Your task to perform on an android device: Open display settings Image 0: 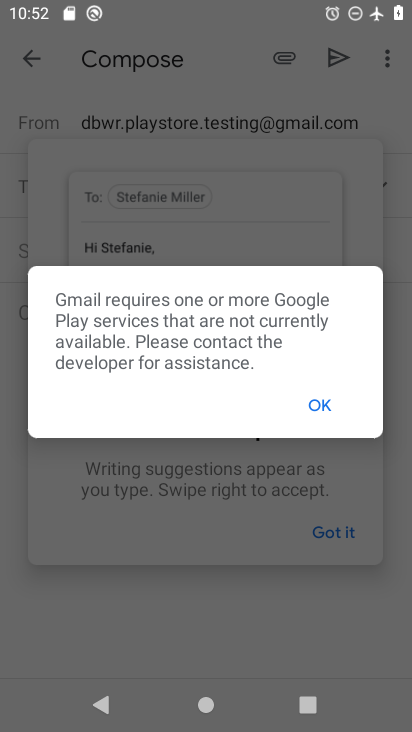
Step 0: press home button
Your task to perform on an android device: Open display settings Image 1: 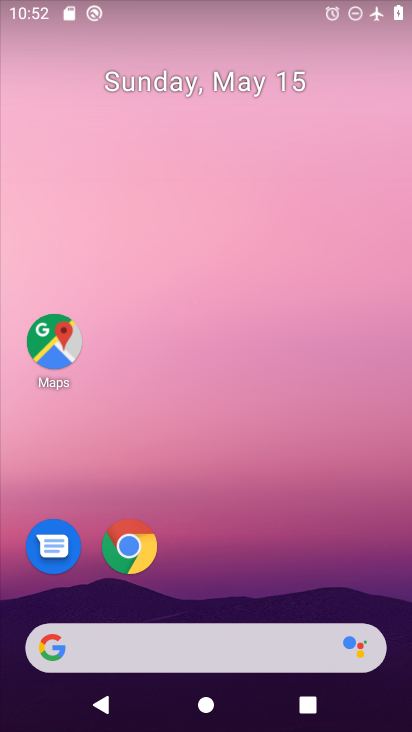
Step 1: drag from (251, 517) to (370, 103)
Your task to perform on an android device: Open display settings Image 2: 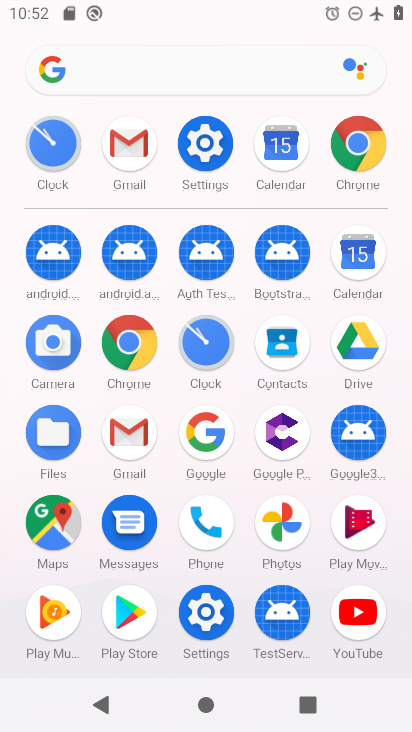
Step 2: click (210, 138)
Your task to perform on an android device: Open display settings Image 3: 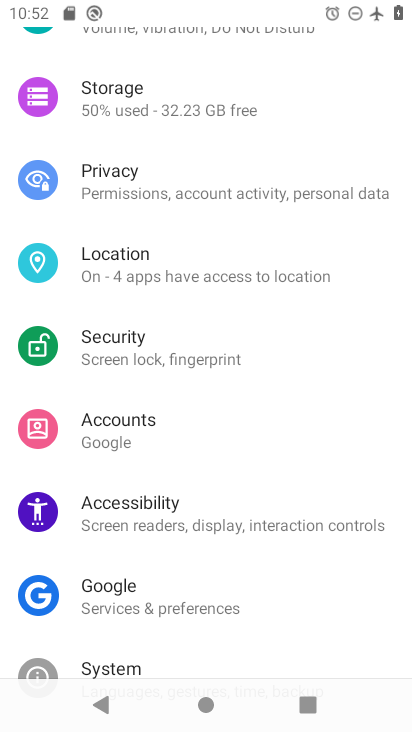
Step 3: drag from (230, 151) to (274, 612)
Your task to perform on an android device: Open display settings Image 4: 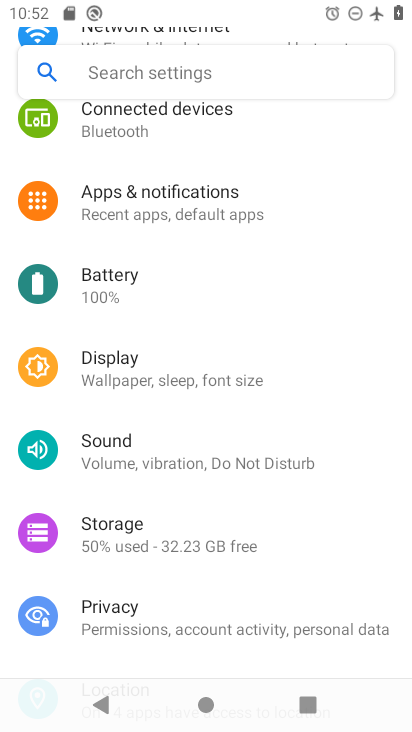
Step 4: click (230, 365)
Your task to perform on an android device: Open display settings Image 5: 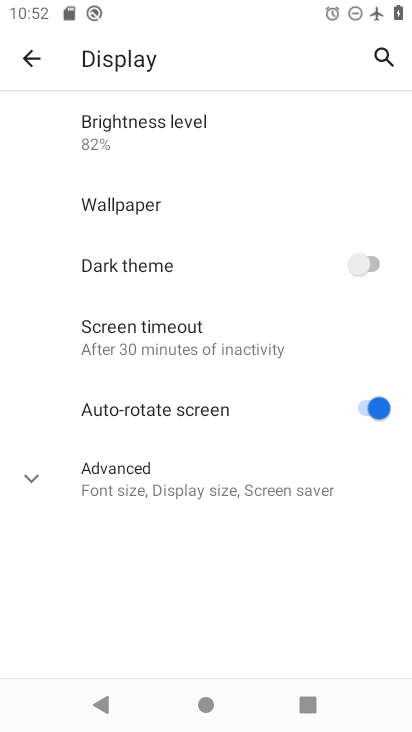
Step 5: task complete